Your task to perform on an android device: Search for bose soundsport free on costco.com, select the first entry, add it to the cart, then select checkout. Image 0: 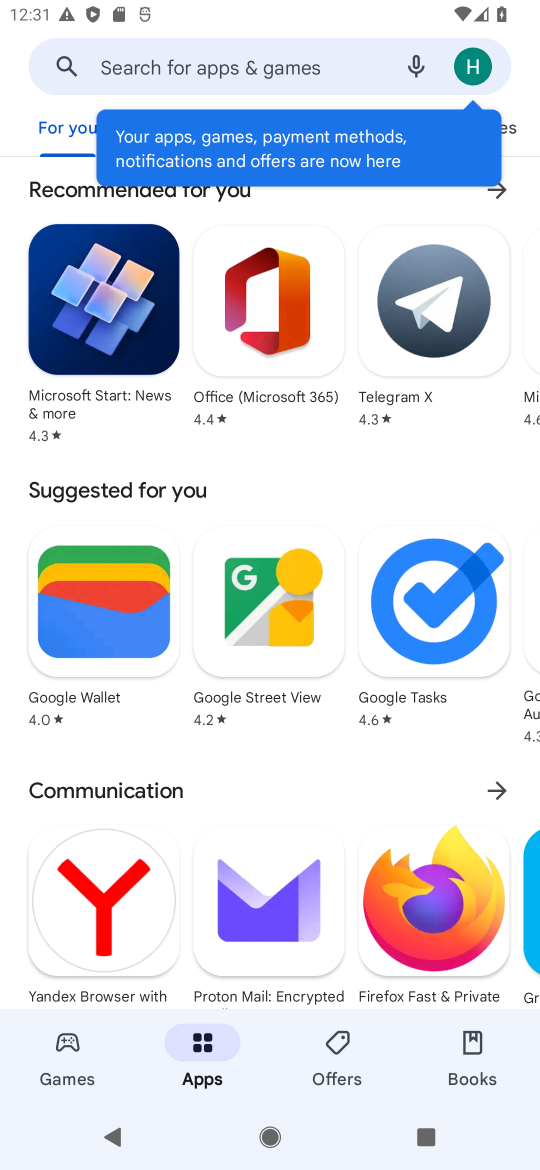
Step 0: press home button
Your task to perform on an android device: Search for bose soundsport free on costco.com, select the first entry, add it to the cart, then select checkout. Image 1: 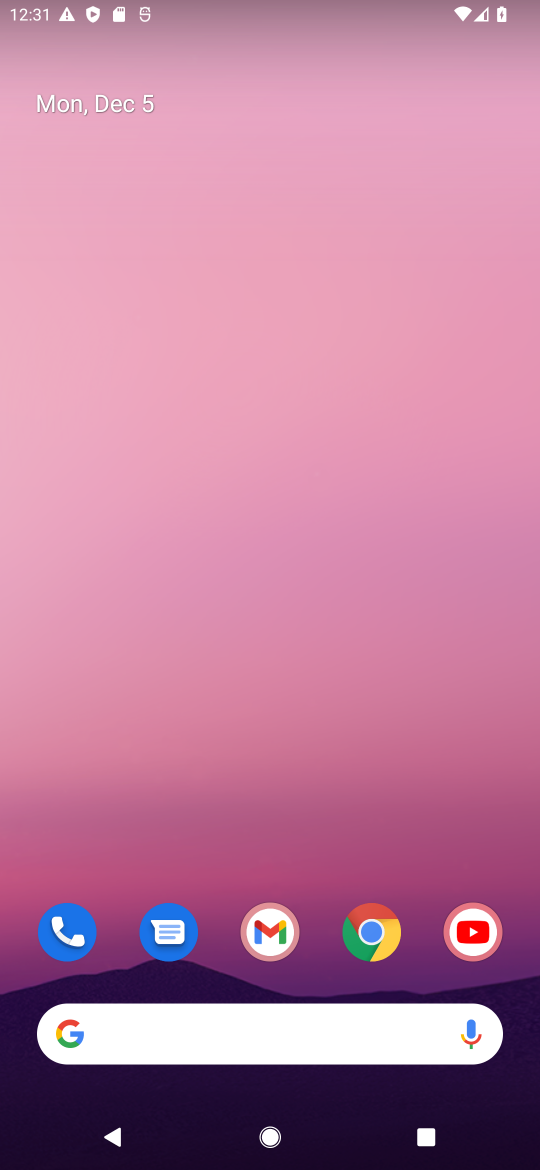
Step 1: click (370, 943)
Your task to perform on an android device: Search for bose soundsport free on costco.com, select the first entry, add it to the cart, then select checkout. Image 2: 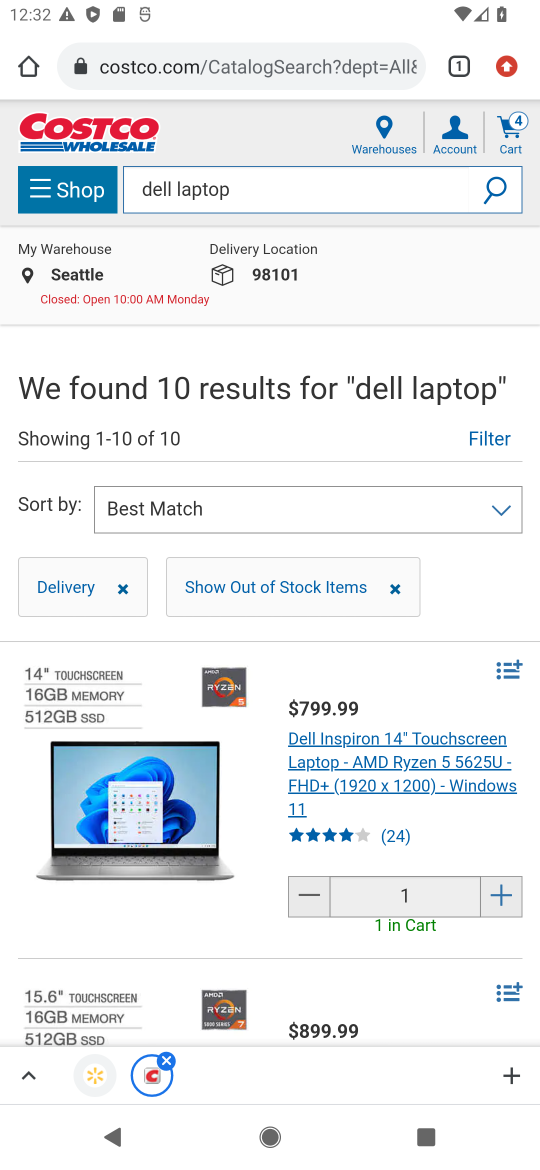
Step 2: click (266, 64)
Your task to perform on an android device: Search for bose soundsport free on costco.com, select the first entry, add it to the cart, then select checkout. Image 3: 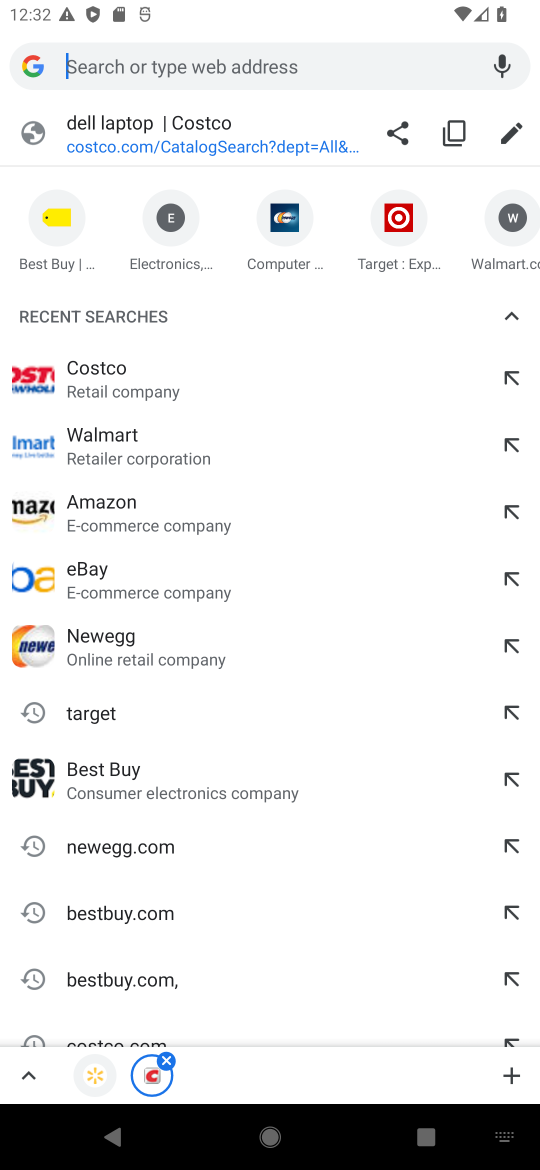
Step 3: click (139, 383)
Your task to perform on an android device: Search for bose soundsport free on costco.com, select the first entry, add it to the cart, then select checkout. Image 4: 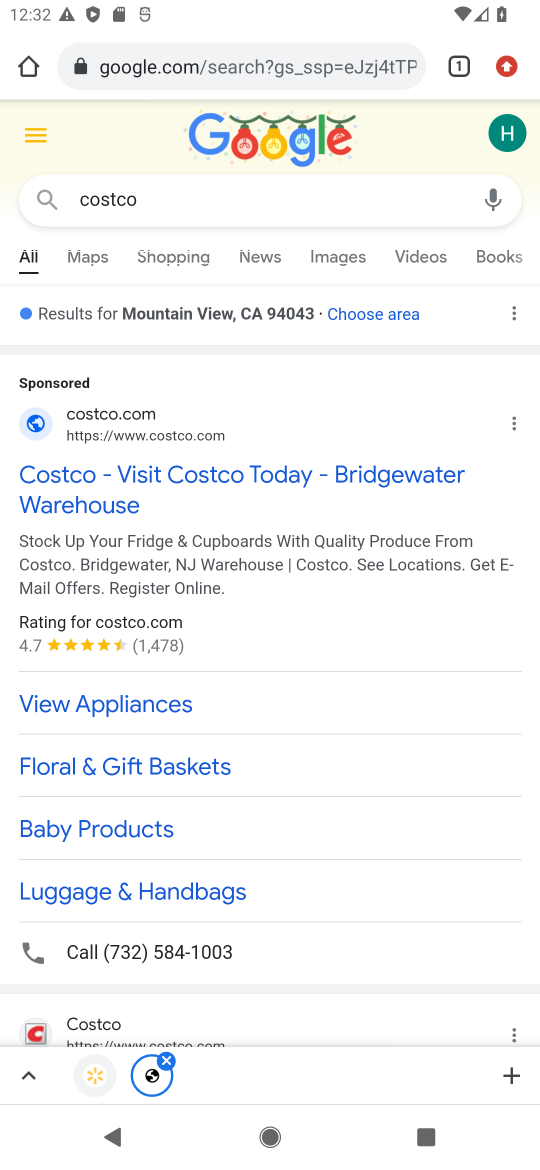
Step 4: click (86, 490)
Your task to perform on an android device: Search for bose soundsport free on costco.com, select the first entry, add it to the cart, then select checkout. Image 5: 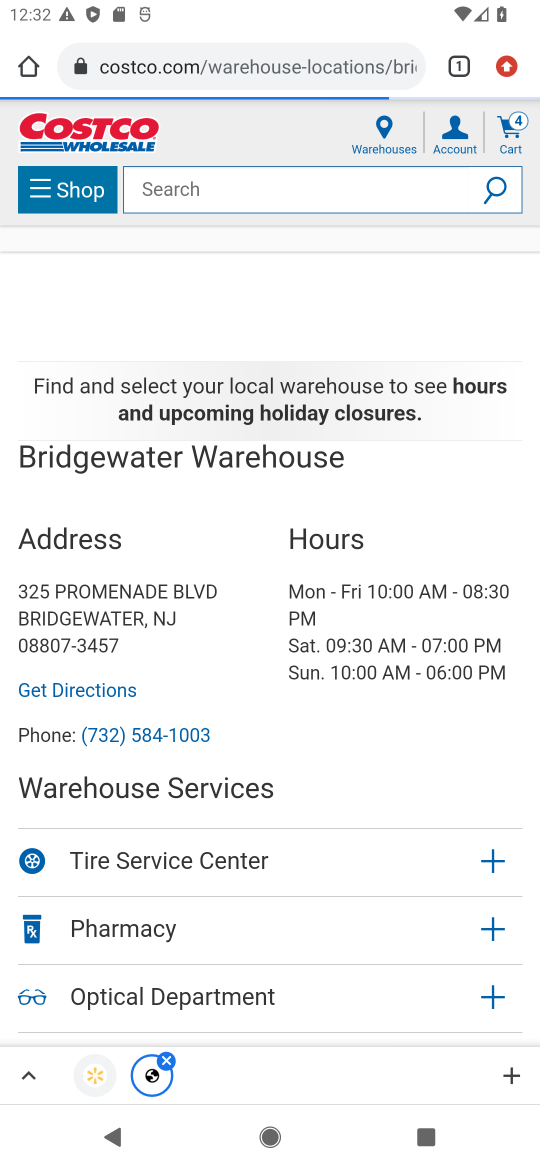
Step 5: click (400, 195)
Your task to perform on an android device: Search for bose soundsport free on costco.com, select the first entry, add it to the cart, then select checkout. Image 6: 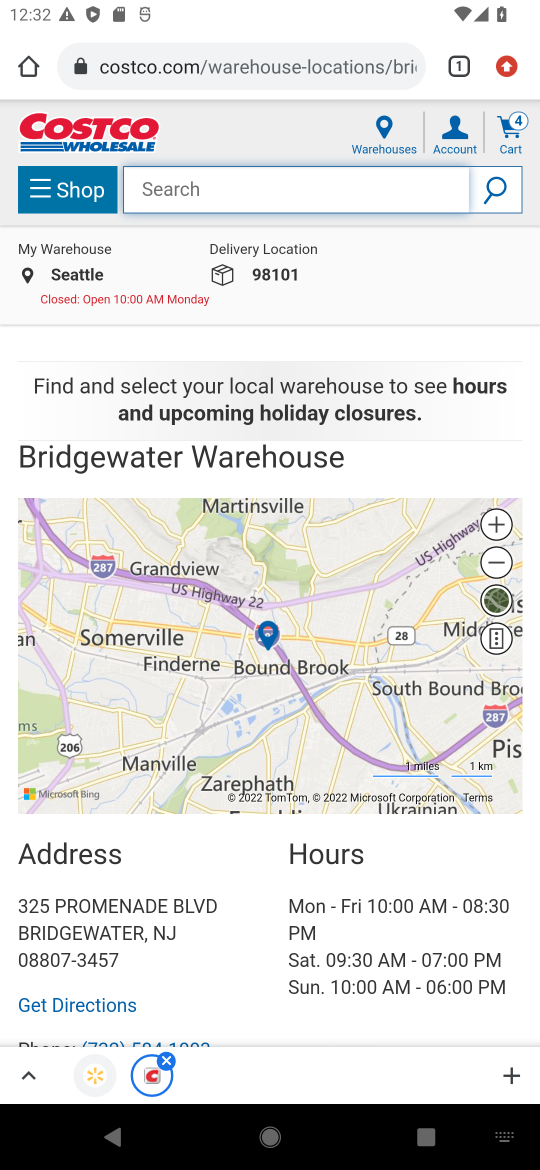
Step 6: type "bose soundport free"
Your task to perform on an android device: Search for bose soundsport free on costco.com, select the first entry, add it to the cart, then select checkout. Image 7: 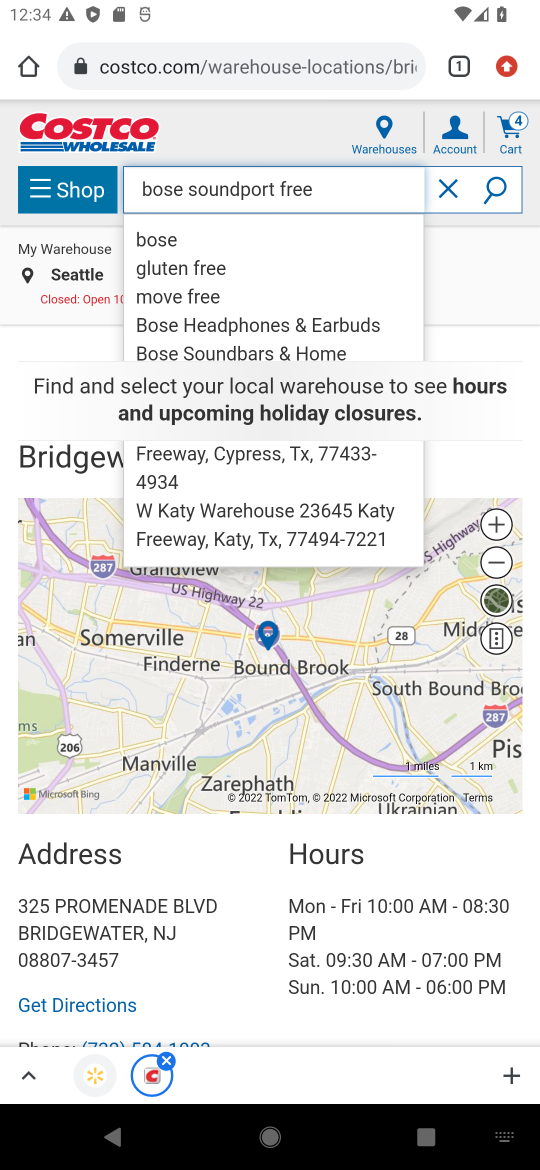
Step 7: click (183, 236)
Your task to perform on an android device: Search for bose soundsport free on costco.com, select the first entry, add it to the cart, then select checkout. Image 8: 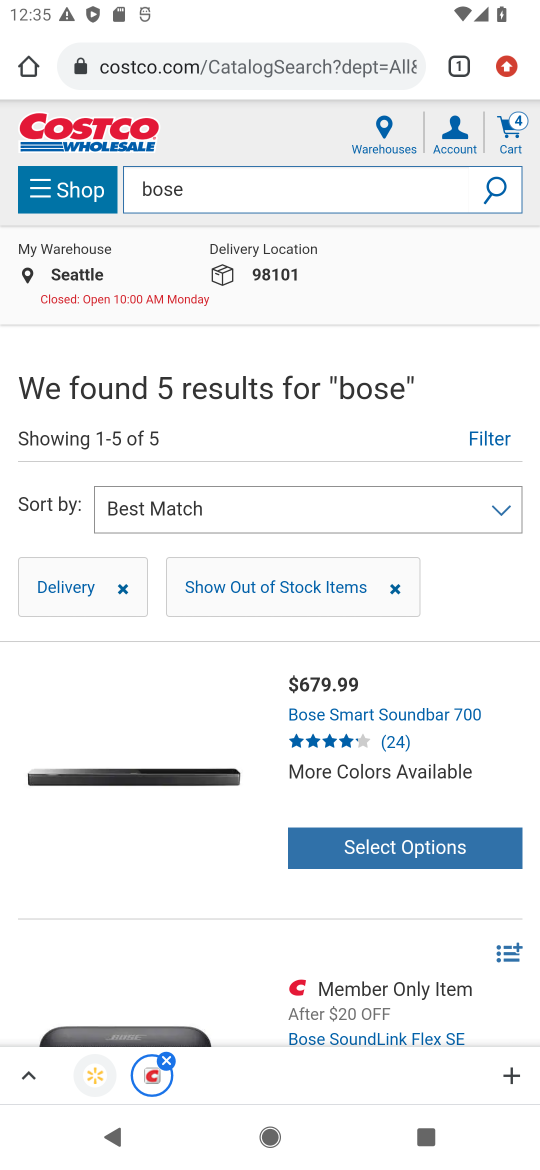
Step 8: click (131, 769)
Your task to perform on an android device: Search for bose soundsport free on costco.com, select the first entry, add it to the cart, then select checkout. Image 9: 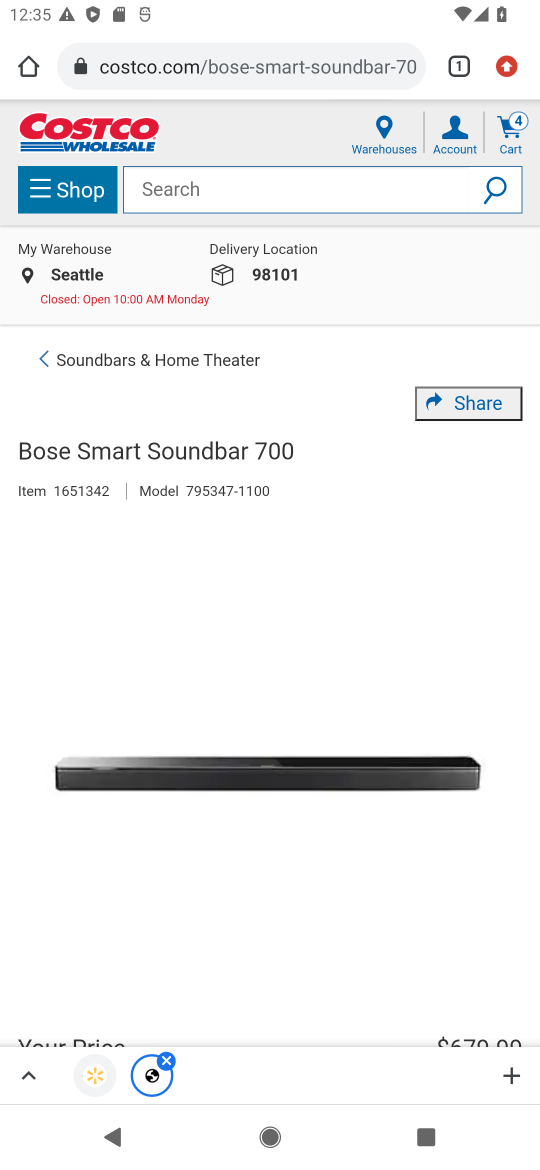
Step 9: drag from (334, 928) to (319, 235)
Your task to perform on an android device: Search for bose soundsport free on costco.com, select the first entry, add it to the cart, then select checkout. Image 10: 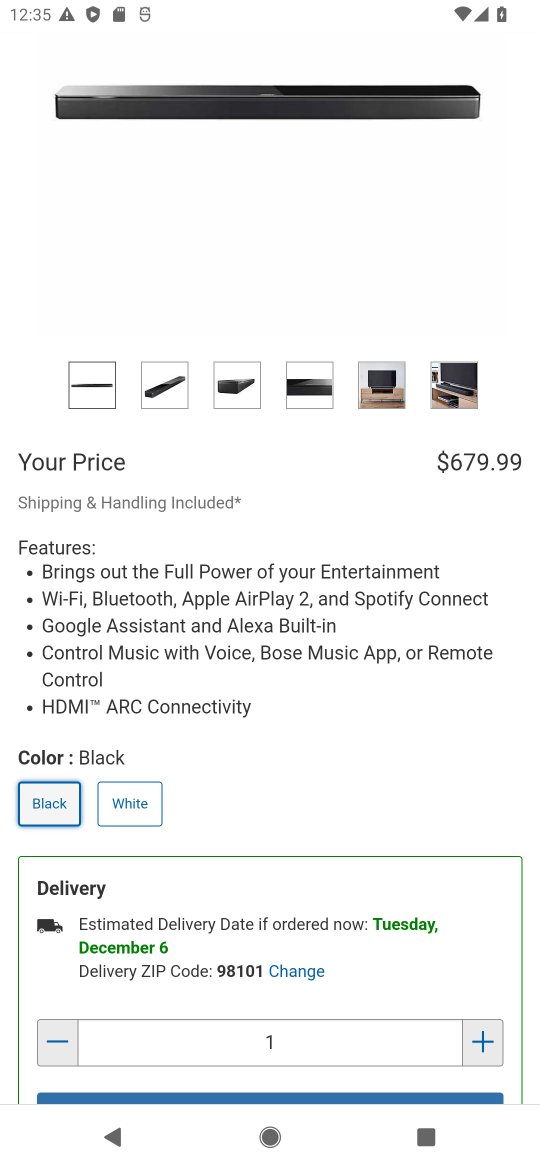
Step 10: drag from (277, 1081) to (251, 466)
Your task to perform on an android device: Search for bose soundsport free on costco.com, select the first entry, add it to the cart, then select checkout. Image 11: 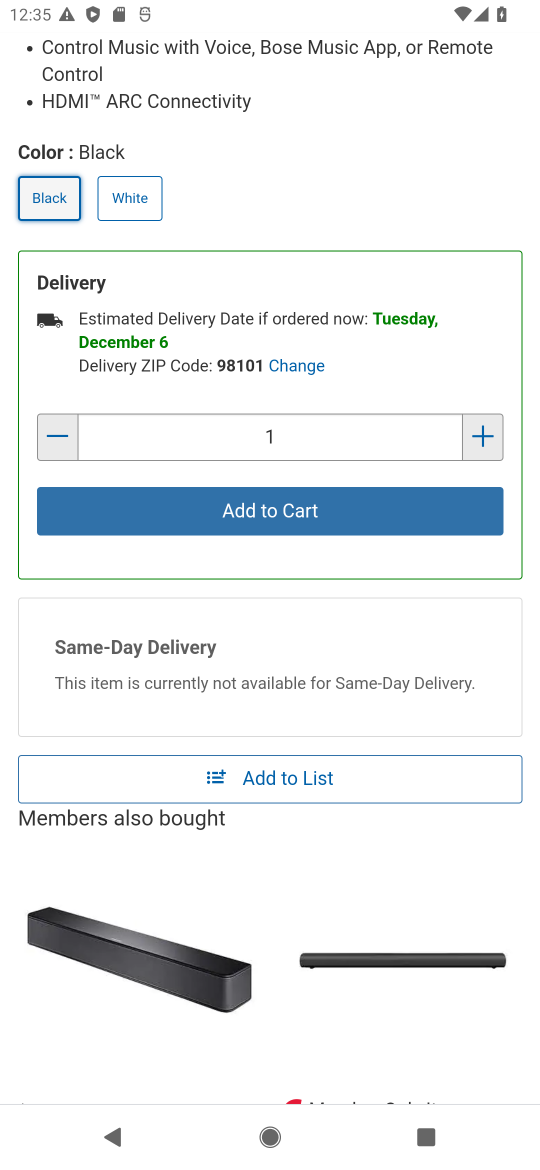
Step 11: click (272, 511)
Your task to perform on an android device: Search for bose soundsport free on costco.com, select the first entry, add it to the cart, then select checkout. Image 12: 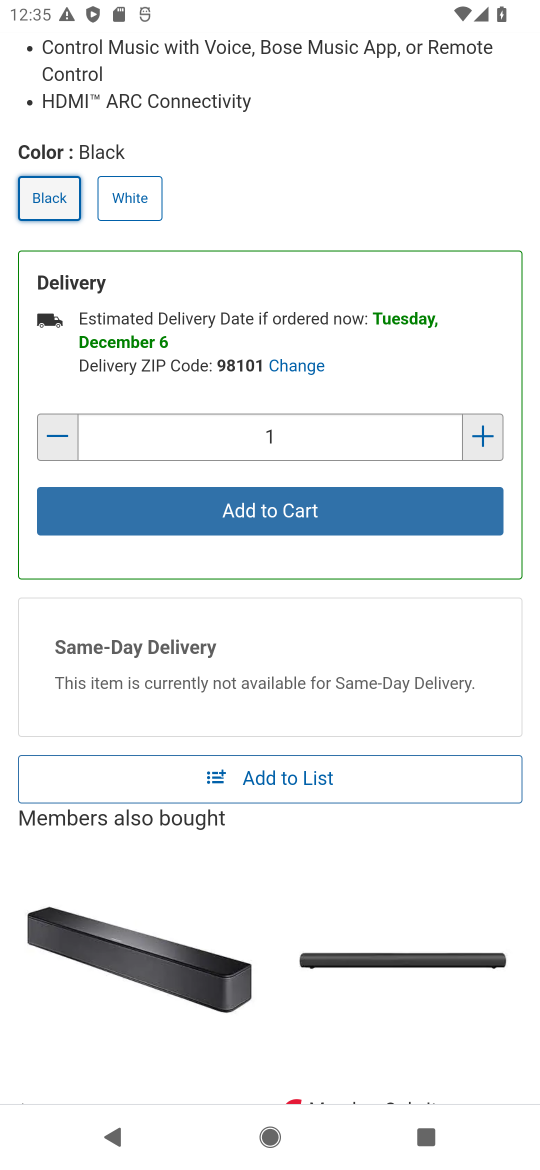
Step 12: click (272, 511)
Your task to perform on an android device: Search for bose soundsport free on costco.com, select the first entry, add it to the cart, then select checkout. Image 13: 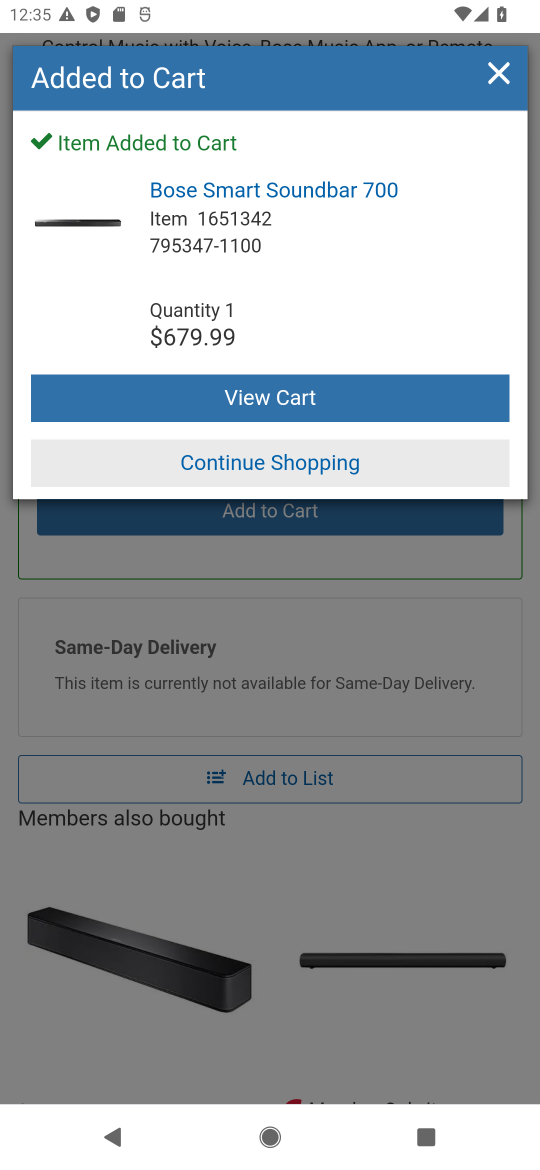
Step 13: task complete